Your task to perform on an android device: Show the shopping cart on ebay. Search for "logitech g pro" on ebay, select the first entry, add it to the cart, then select checkout. Image 0: 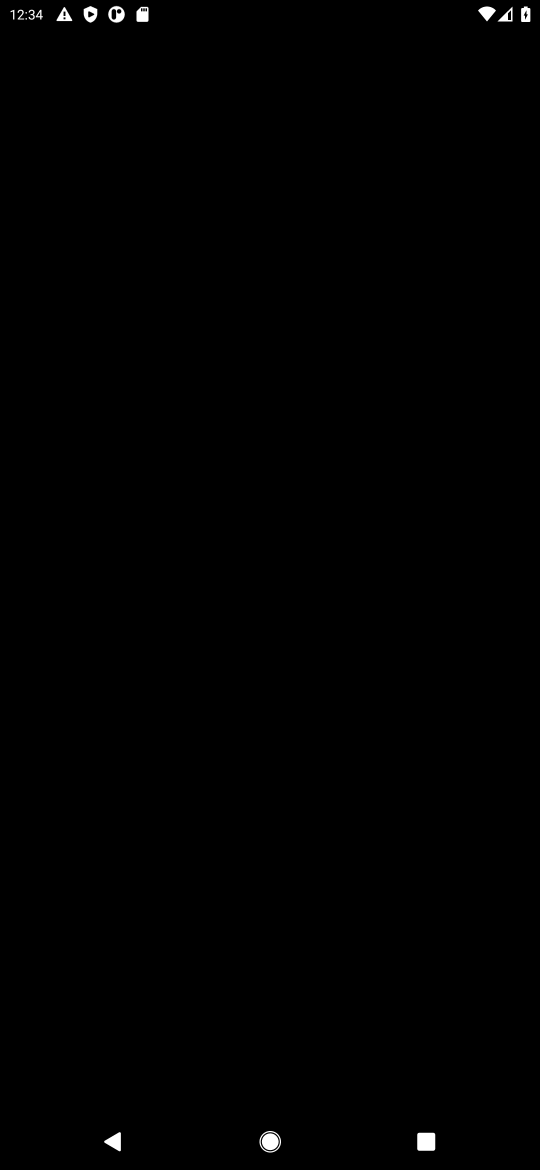
Step 0: press home button
Your task to perform on an android device: Show the shopping cart on ebay. Search for "logitech g pro" on ebay, select the first entry, add it to the cart, then select checkout. Image 1: 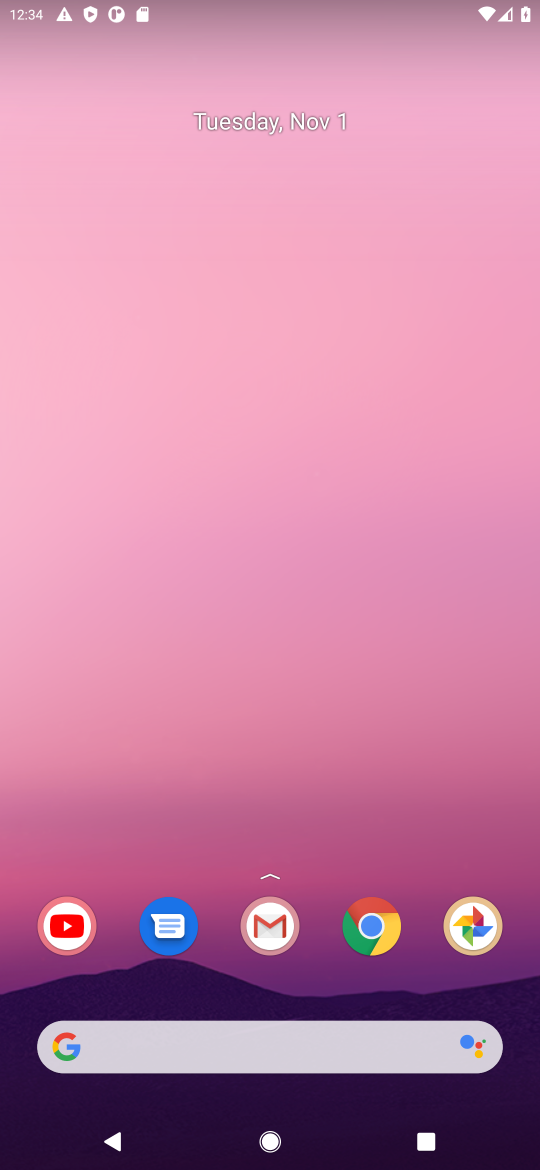
Step 1: click (382, 928)
Your task to perform on an android device: Show the shopping cart on ebay. Search for "logitech g pro" on ebay, select the first entry, add it to the cart, then select checkout. Image 2: 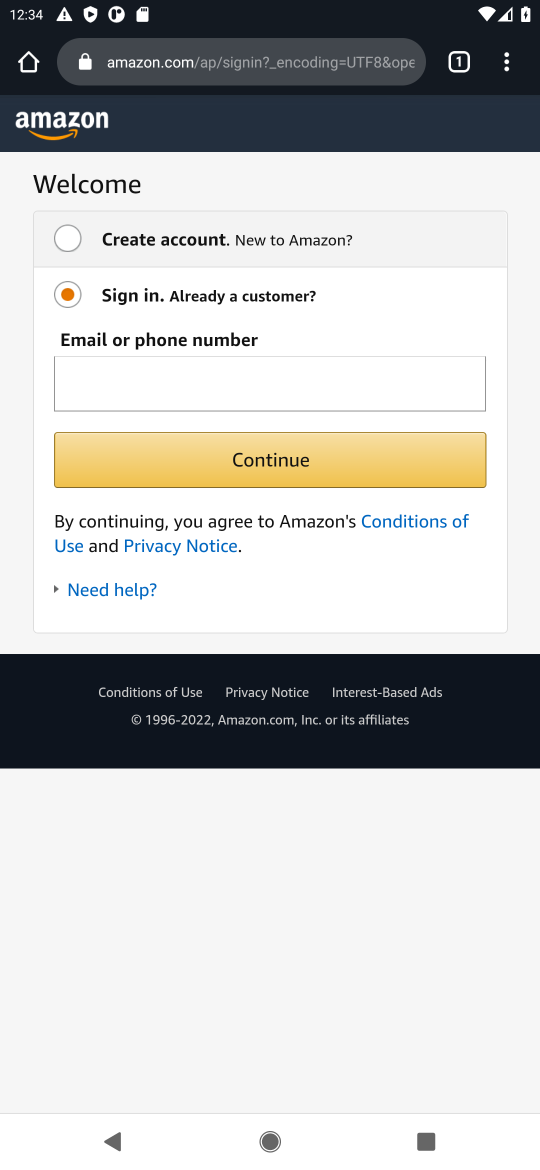
Step 2: click (324, 69)
Your task to perform on an android device: Show the shopping cart on ebay. Search for "logitech g pro" on ebay, select the first entry, add it to the cart, then select checkout. Image 3: 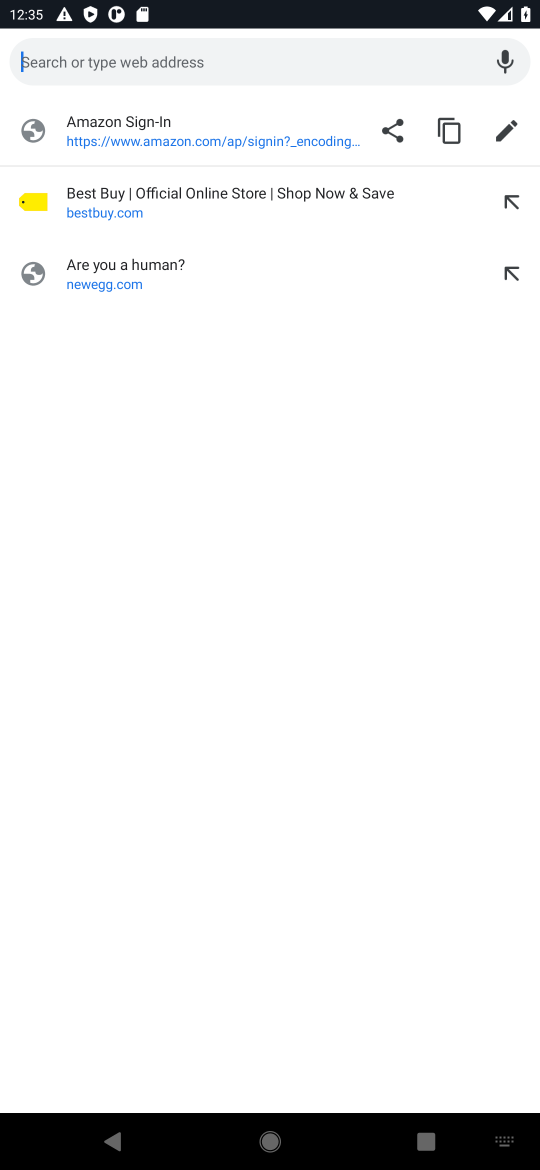
Step 3: type "ebay"
Your task to perform on an android device: Show the shopping cart on ebay. Search for "logitech g pro" on ebay, select the first entry, add it to the cart, then select checkout. Image 4: 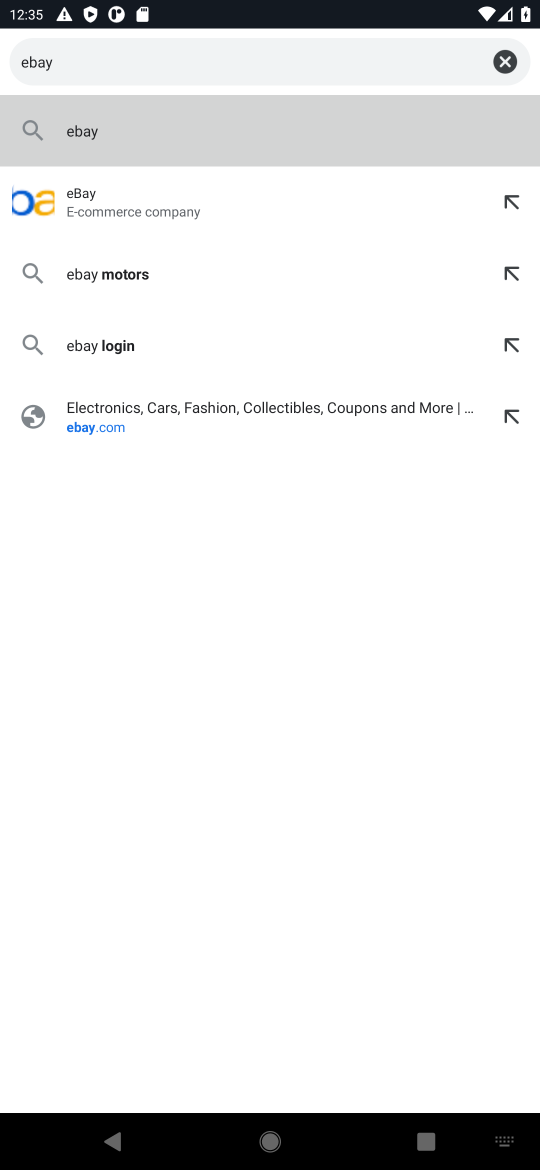
Step 4: press enter
Your task to perform on an android device: Show the shopping cart on ebay. Search for "logitech g pro" on ebay, select the first entry, add it to the cart, then select checkout. Image 5: 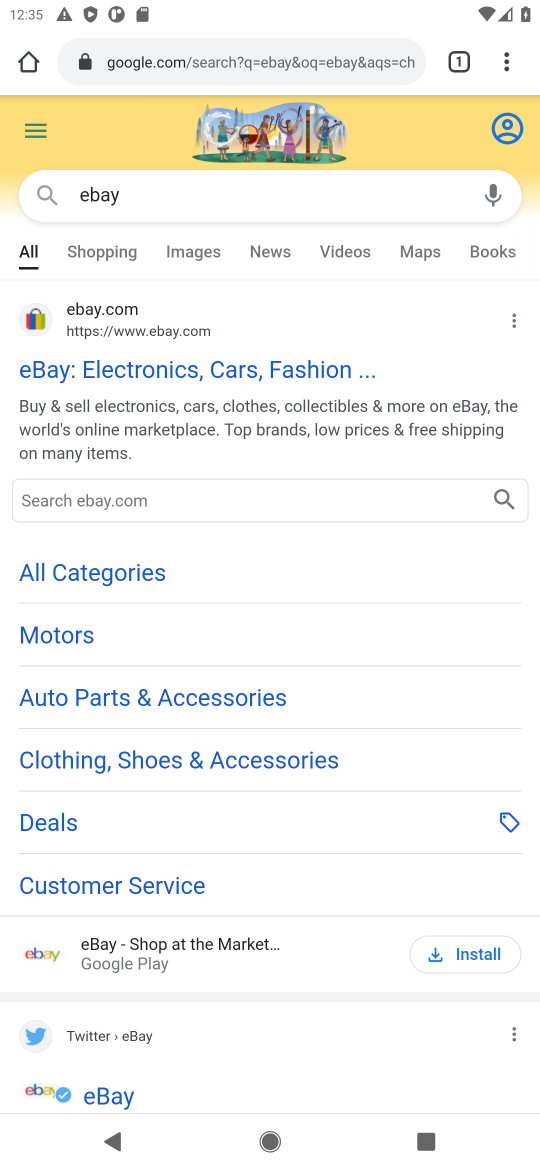
Step 5: click (279, 370)
Your task to perform on an android device: Show the shopping cart on ebay. Search for "logitech g pro" on ebay, select the first entry, add it to the cart, then select checkout. Image 6: 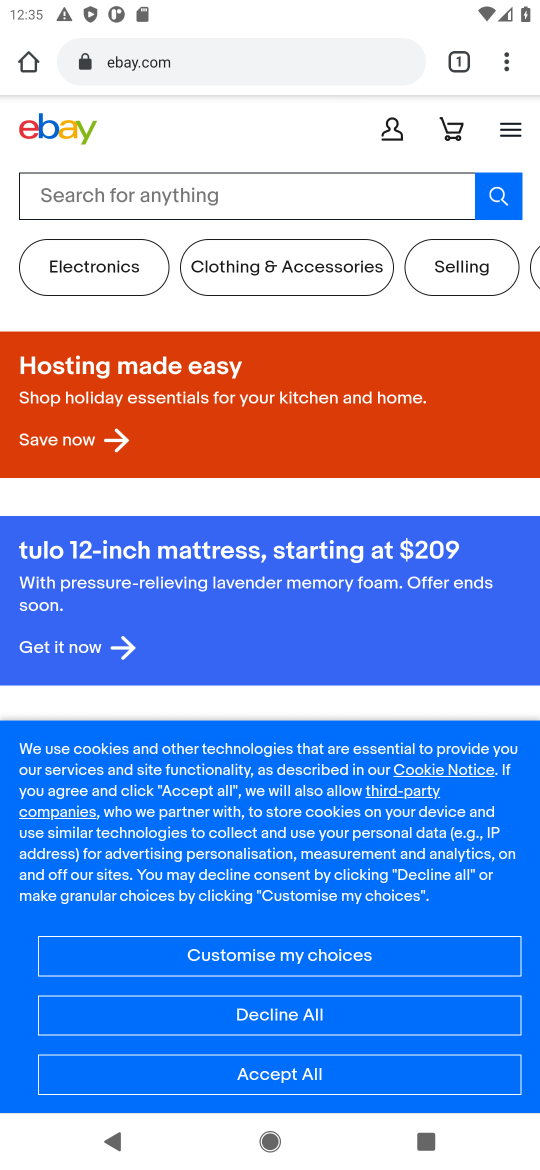
Step 6: click (455, 126)
Your task to perform on an android device: Show the shopping cart on ebay. Search for "logitech g pro" on ebay, select the first entry, add it to the cart, then select checkout. Image 7: 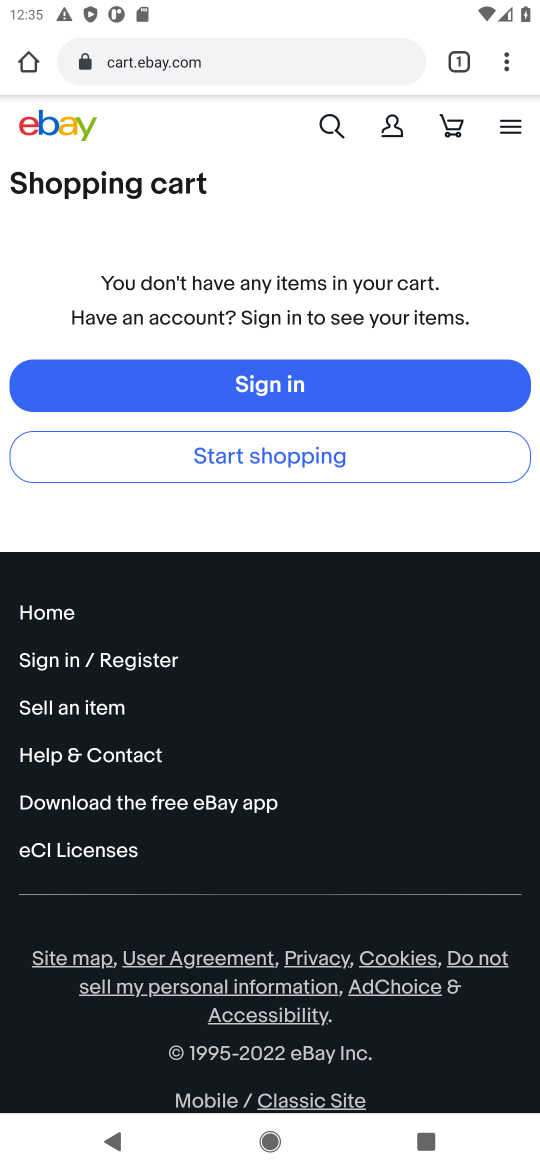
Step 7: click (332, 131)
Your task to perform on an android device: Show the shopping cart on ebay. Search for "logitech g pro" on ebay, select the first entry, add it to the cart, then select checkout. Image 8: 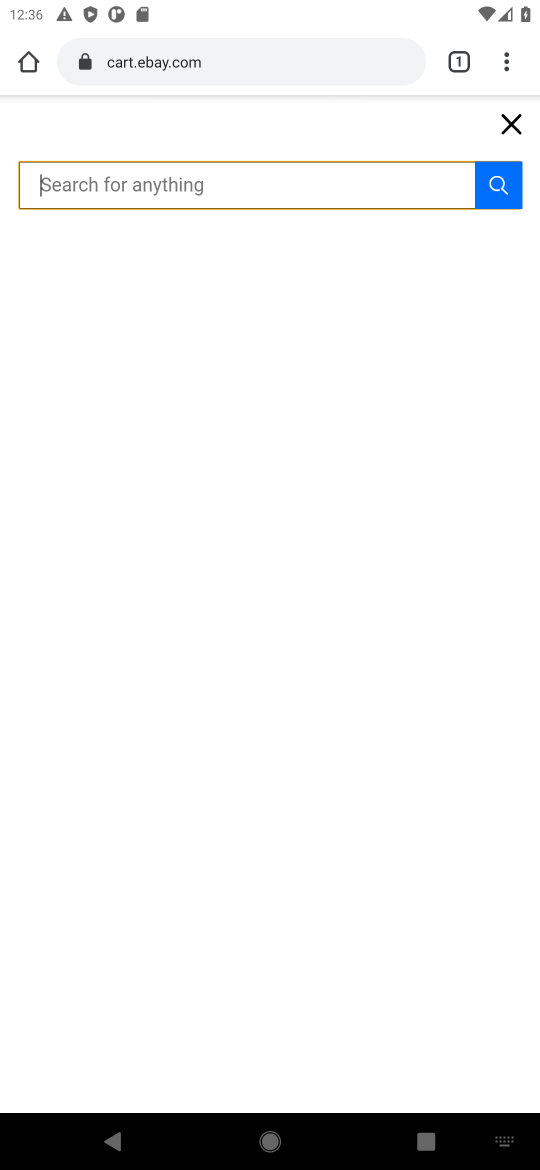
Step 8: type "logitech g pro"
Your task to perform on an android device: Show the shopping cart on ebay. Search for "logitech g pro" on ebay, select the first entry, add it to the cart, then select checkout. Image 9: 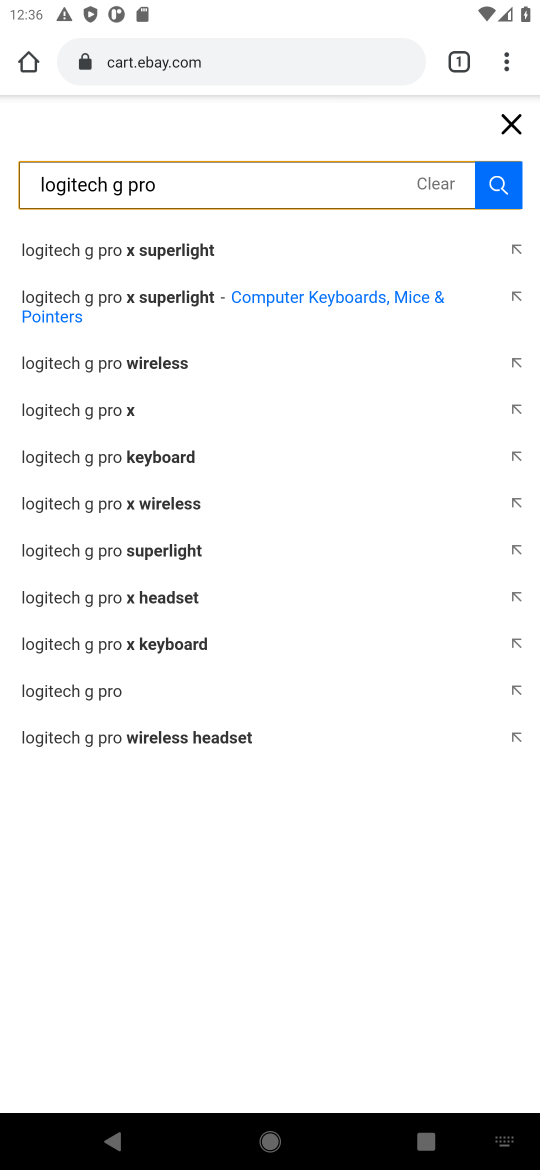
Step 9: press enter
Your task to perform on an android device: Show the shopping cart on ebay. Search for "logitech g pro" on ebay, select the first entry, add it to the cart, then select checkout. Image 10: 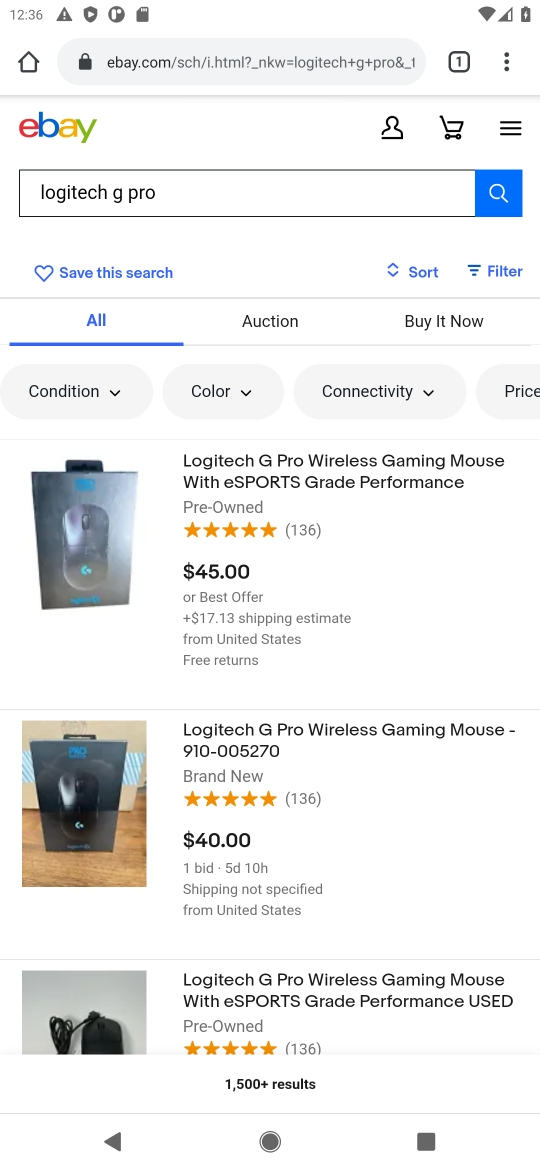
Step 10: click (311, 464)
Your task to perform on an android device: Show the shopping cart on ebay. Search for "logitech g pro" on ebay, select the first entry, add it to the cart, then select checkout. Image 11: 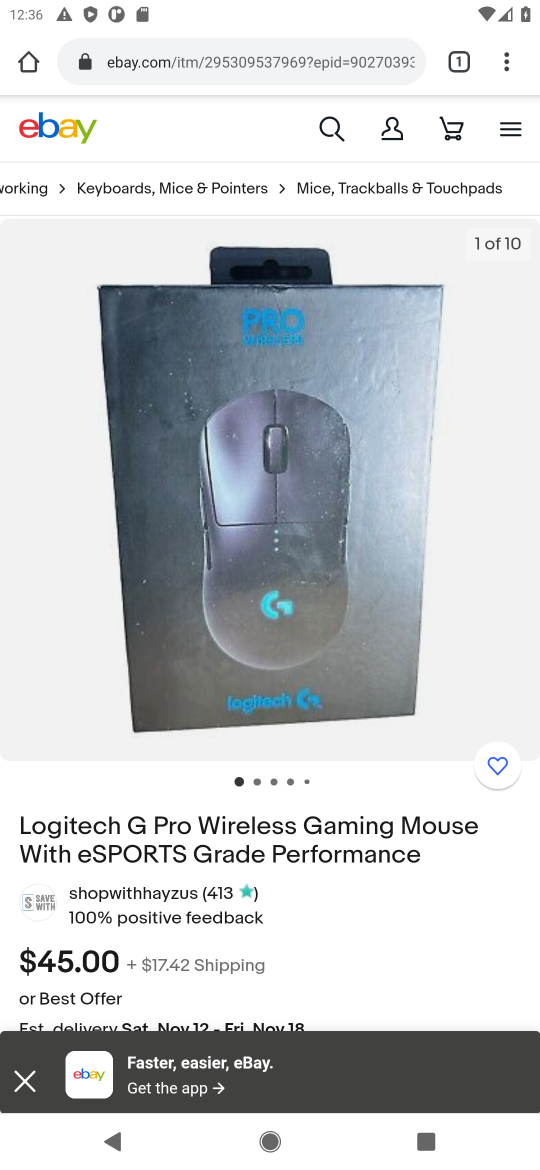
Step 11: drag from (390, 969) to (344, 610)
Your task to perform on an android device: Show the shopping cart on ebay. Search for "logitech g pro" on ebay, select the first entry, add it to the cart, then select checkout. Image 12: 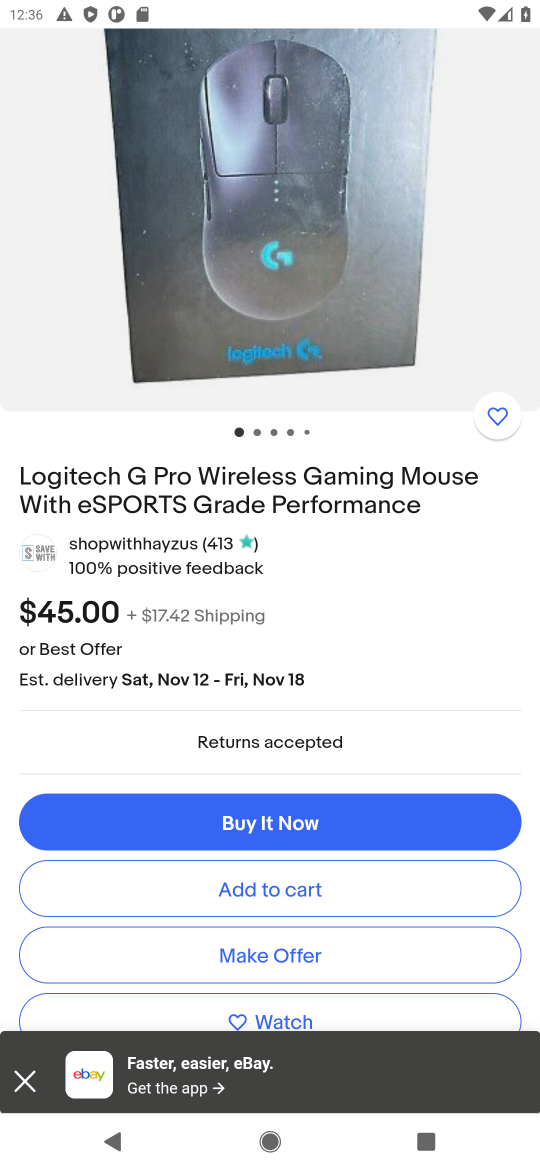
Step 12: click (250, 895)
Your task to perform on an android device: Show the shopping cart on ebay. Search for "logitech g pro" on ebay, select the first entry, add it to the cart, then select checkout. Image 13: 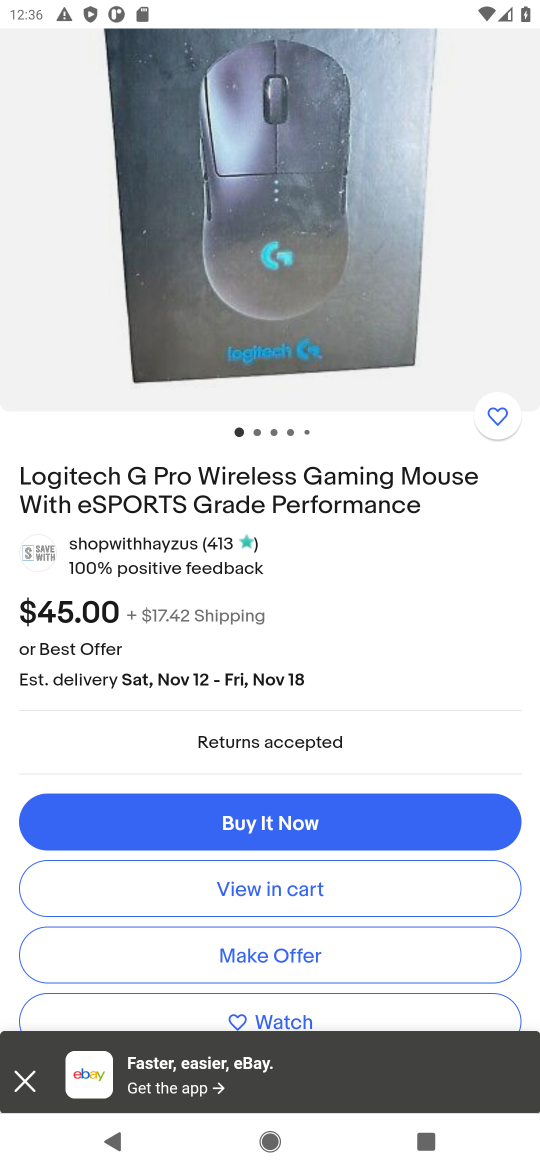
Step 13: click (250, 895)
Your task to perform on an android device: Show the shopping cart on ebay. Search for "logitech g pro" on ebay, select the first entry, add it to the cart, then select checkout. Image 14: 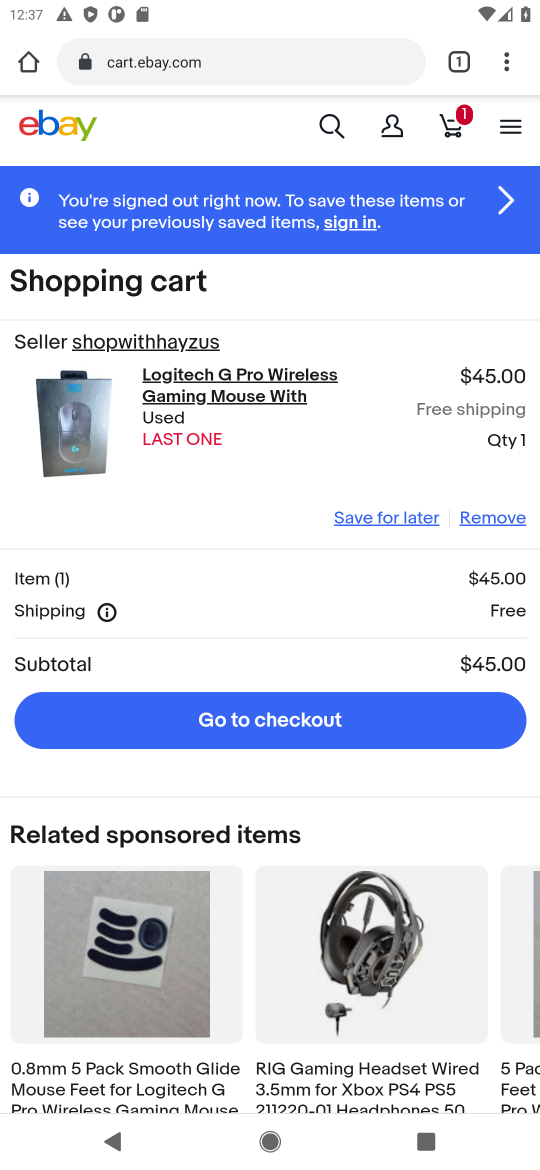
Step 14: click (280, 726)
Your task to perform on an android device: Show the shopping cart on ebay. Search for "logitech g pro" on ebay, select the first entry, add it to the cart, then select checkout. Image 15: 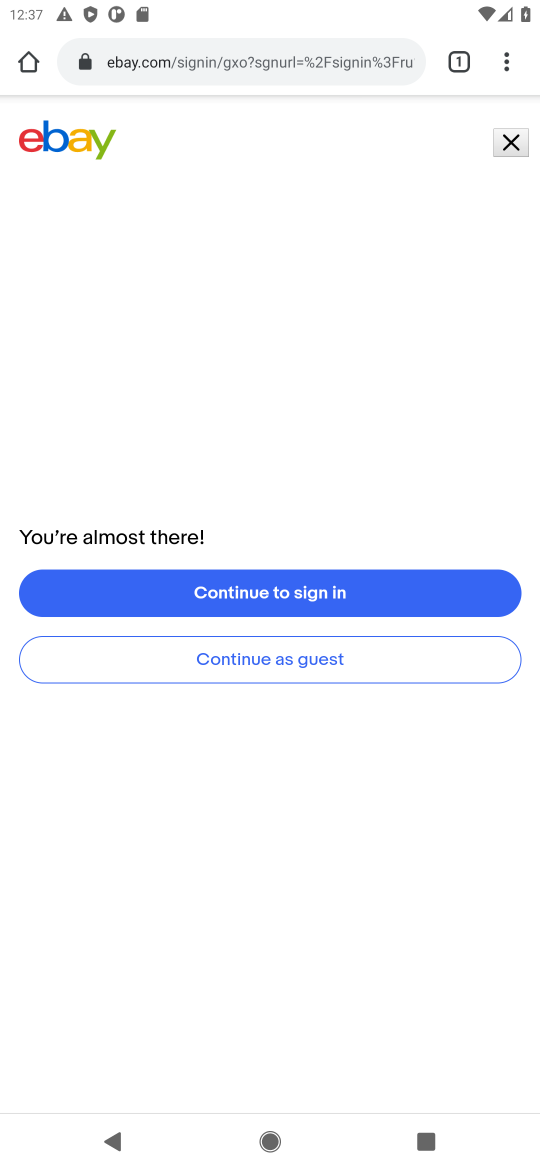
Step 15: task complete